Your task to perform on an android device: check android version Image 0: 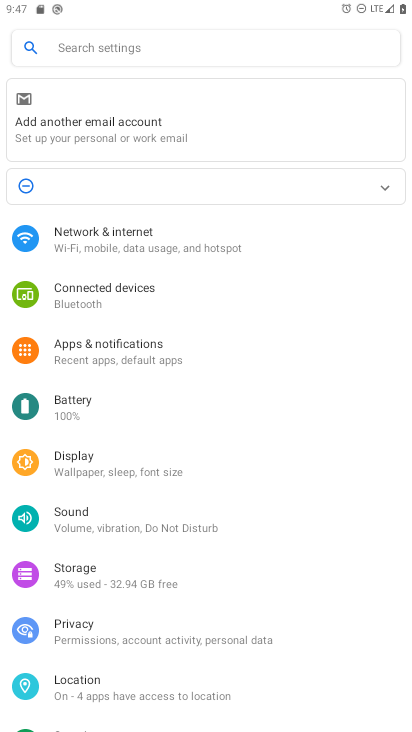
Step 0: press home button
Your task to perform on an android device: check android version Image 1: 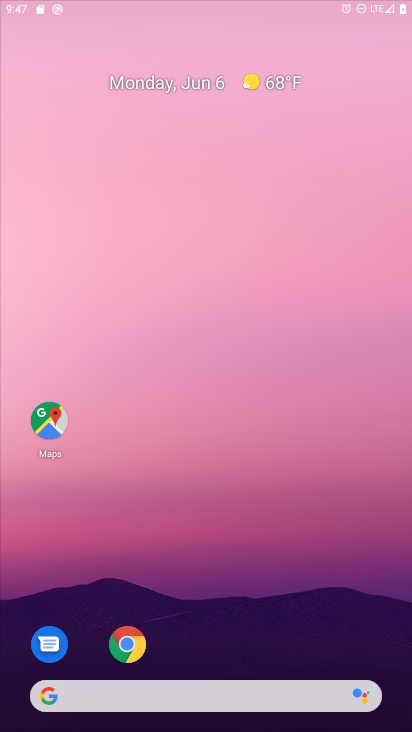
Step 1: drag from (228, 713) to (351, 247)
Your task to perform on an android device: check android version Image 2: 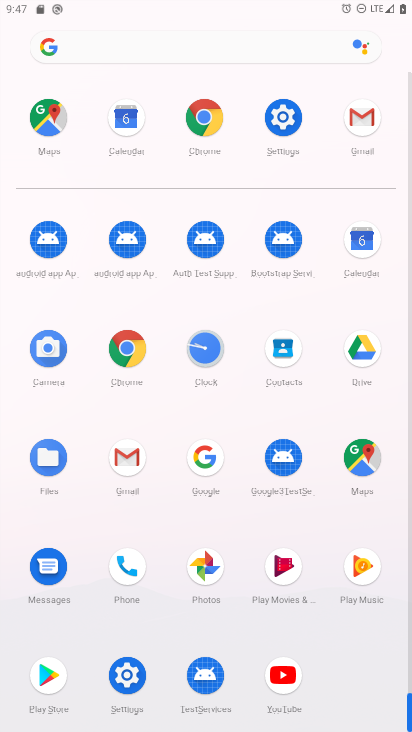
Step 2: click (272, 134)
Your task to perform on an android device: check android version Image 3: 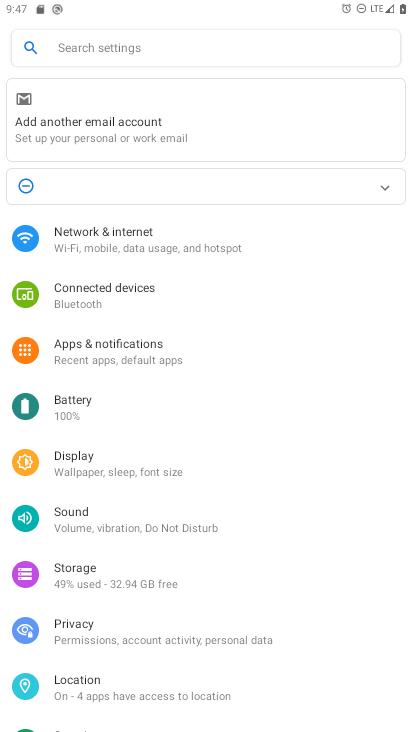
Step 3: click (137, 44)
Your task to perform on an android device: check android version Image 4: 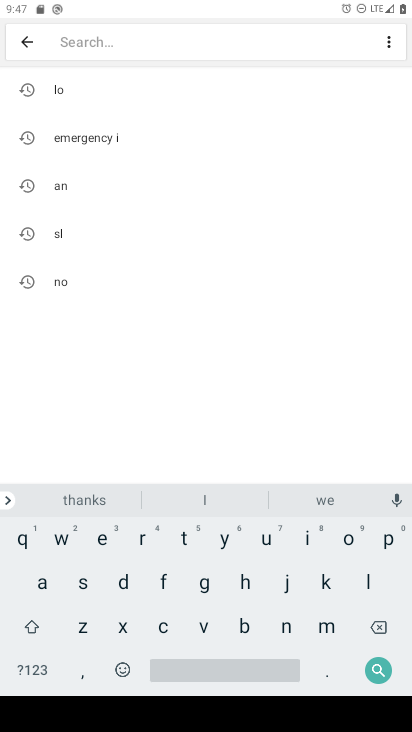
Step 4: click (38, 582)
Your task to perform on an android device: check android version Image 5: 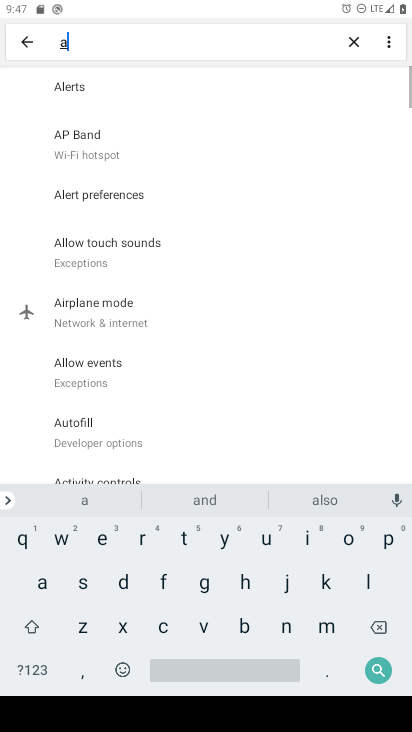
Step 5: click (281, 624)
Your task to perform on an android device: check android version Image 6: 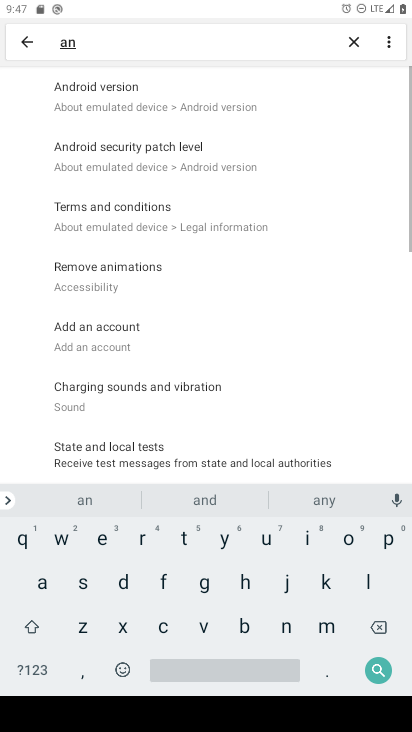
Step 6: click (143, 96)
Your task to perform on an android device: check android version Image 7: 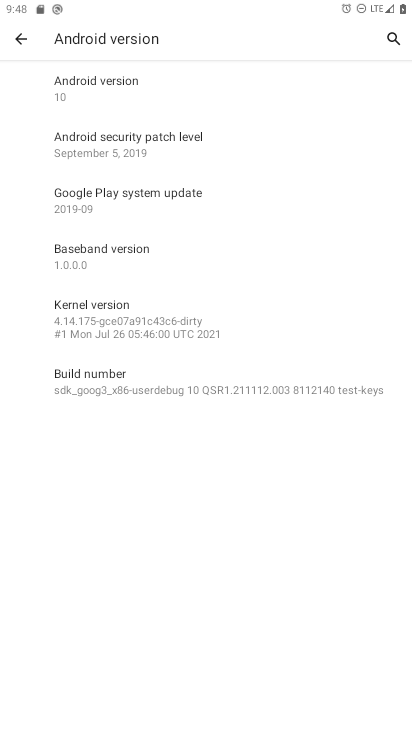
Step 7: task complete